Your task to perform on an android device: turn off improve location accuracy Image 0: 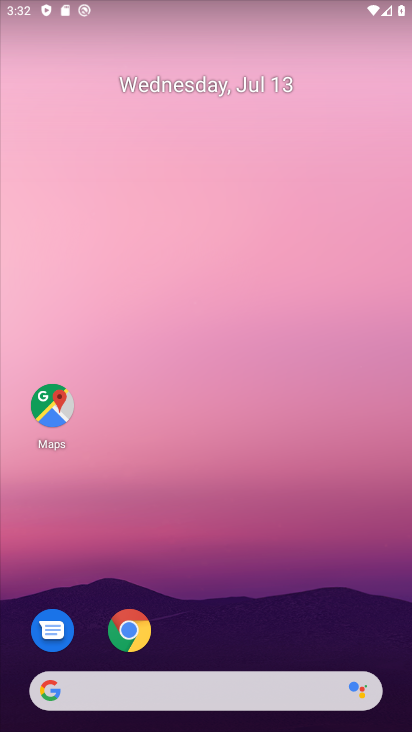
Step 0: drag from (204, 574) to (192, 15)
Your task to perform on an android device: turn off improve location accuracy Image 1: 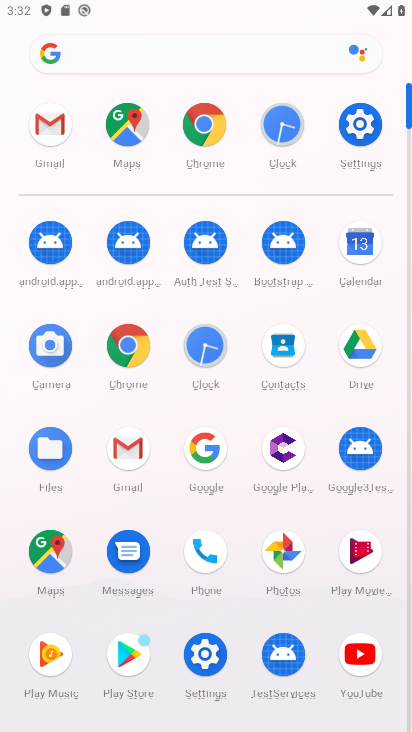
Step 1: click (360, 126)
Your task to perform on an android device: turn off improve location accuracy Image 2: 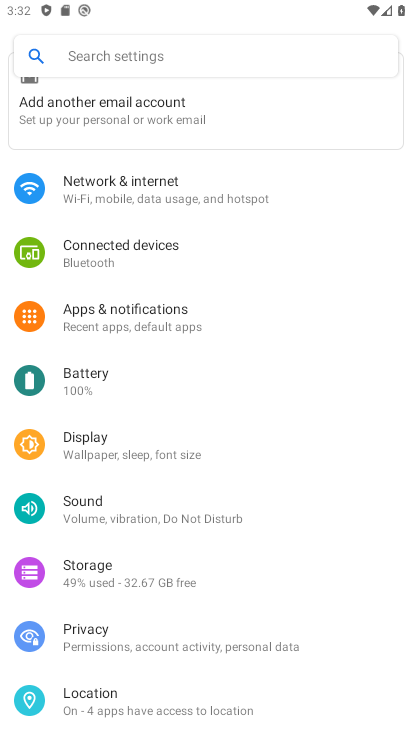
Step 2: click (83, 698)
Your task to perform on an android device: turn off improve location accuracy Image 3: 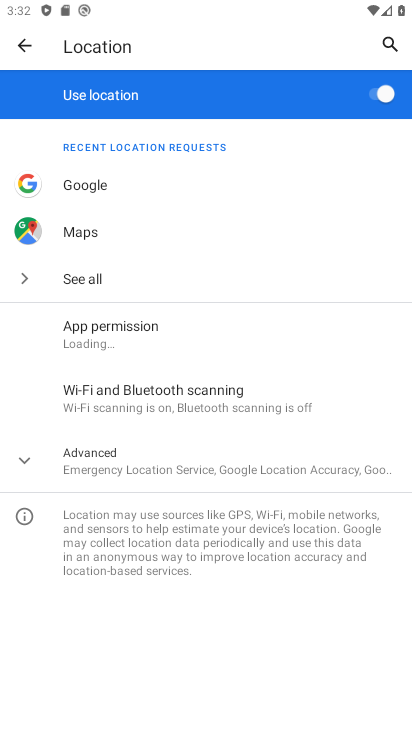
Step 3: click (24, 453)
Your task to perform on an android device: turn off improve location accuracy Image 4: 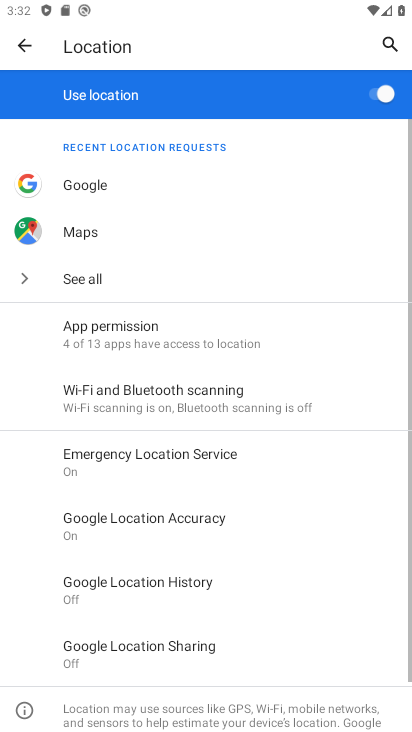
Step 4: click (131, 522)
Your task to perform on an android device: turn off improve location accuracy Image 5: 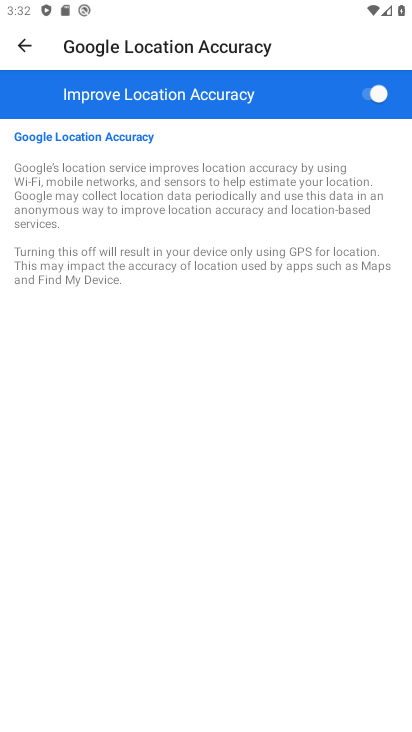
Step 5: click (379, 97)
Your task to perform on an android device: turn off improve location accuracy Image 6: 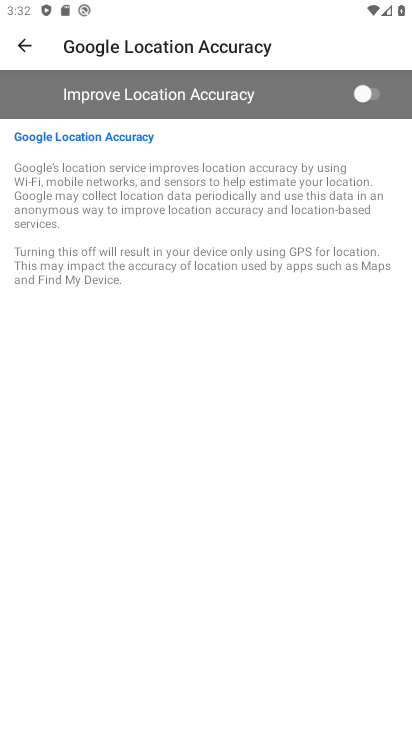
Step 6: task complete